Your task to perform on an android device: see creations saved in the google photos Image 0: 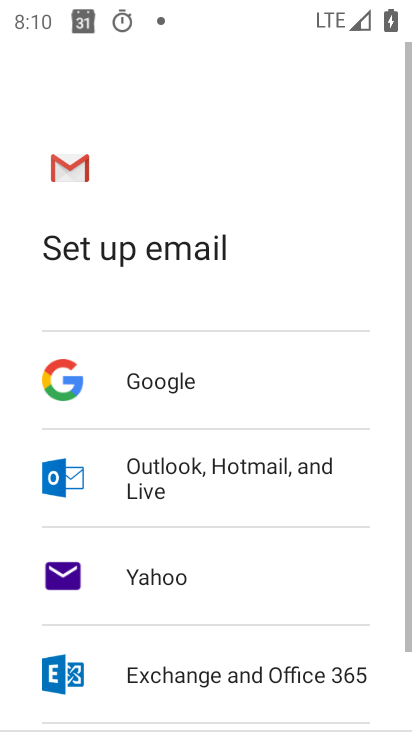
Step 0: press home button
Your task to perform on an android device: see creations saved in the google photos Image 1: 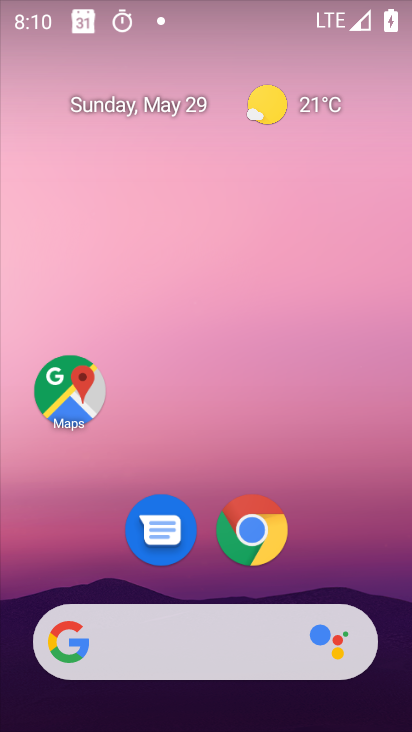
Step 1: drag from (294, 682) to (404, 47)
Your task to perform on an android device: see creations saved in the google photos Image 2: 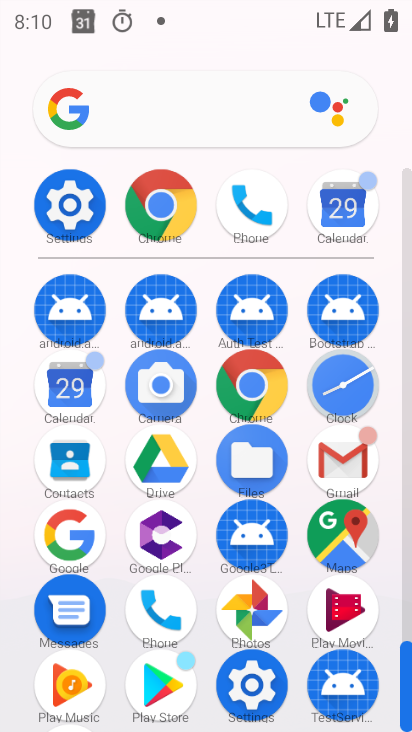
Step 2: click (247, 618)
Your task to perform on an android device: see creations saved in the google photos Image 3: 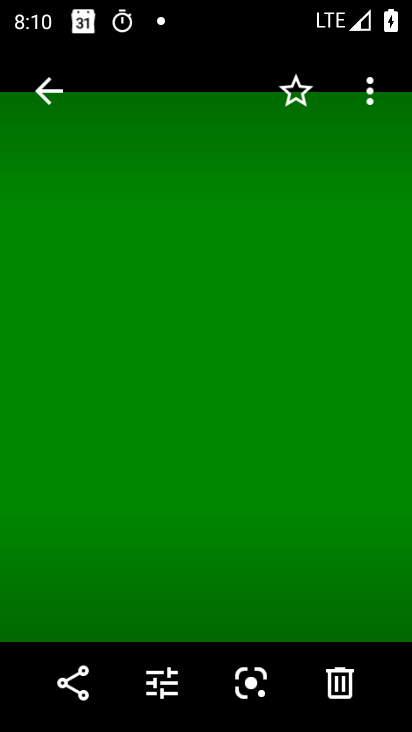
Step 3: click (363, 94)
Your task to perform on an android device: see creations saved in the google photos Image 4: 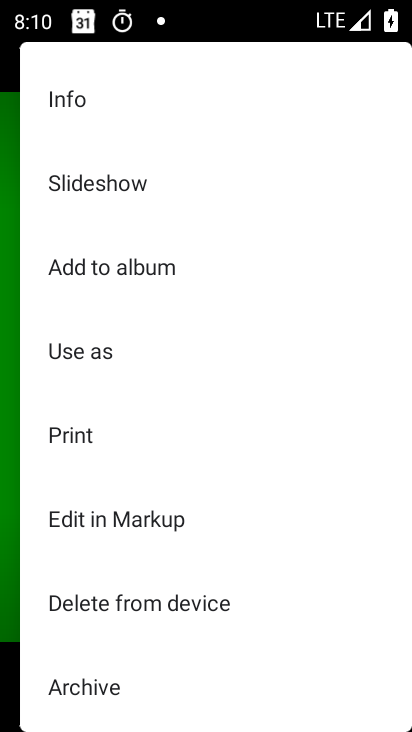
Step 4: click (9, 513)
Your task to perform on an android device: see creations saved in the google photos Image 5: 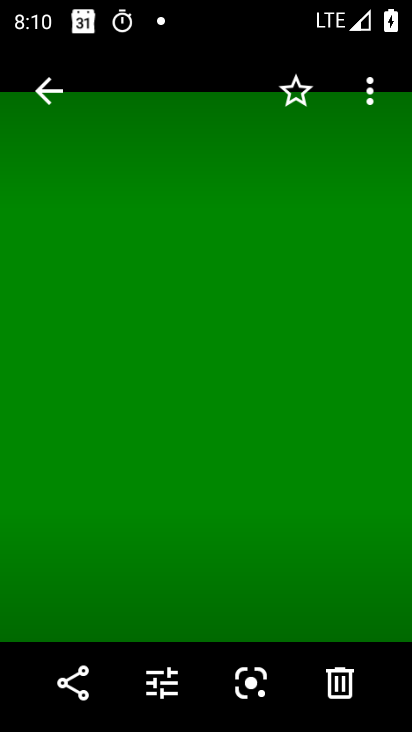
Step 5: click (33, 88)
Your task to perform on an android device: see creations saved in the google photos Image 6: 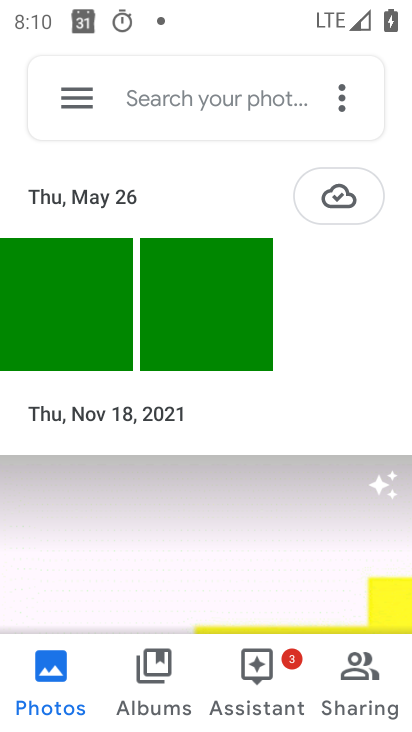
Step 6: drag from (261, 507) to (233, 164)
Your task to perform on an android device: see creations saved in the google photos Image 7: 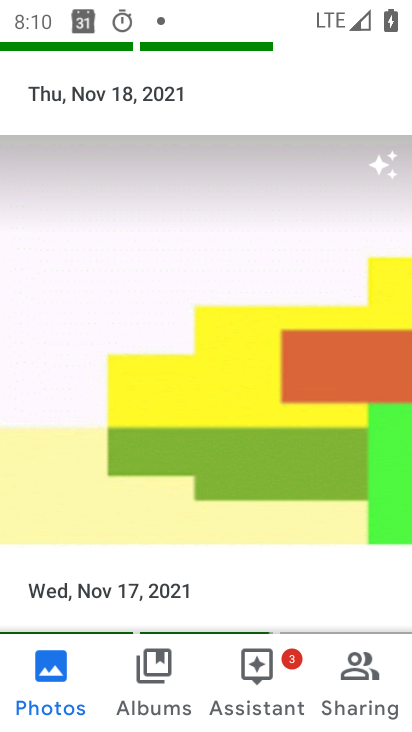
Step 7: drag from (254, 483) to (210, 241)
Your task to perform on an android device: see creations saved in the google photos Image 8: 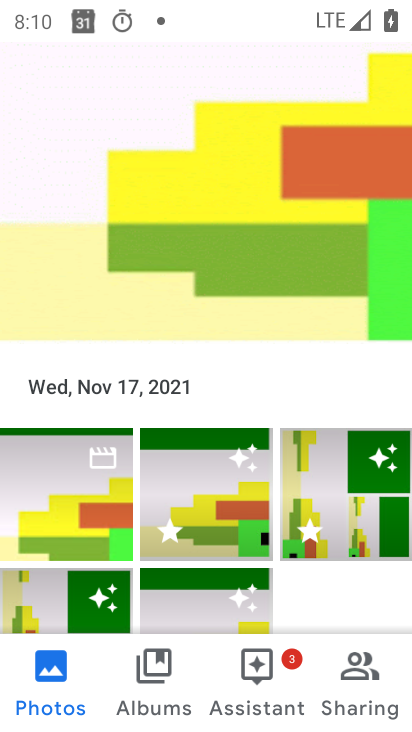
Step 8: click (242, 468)
Your task to perform on an android device: see creations saved in the google photos Image 9: 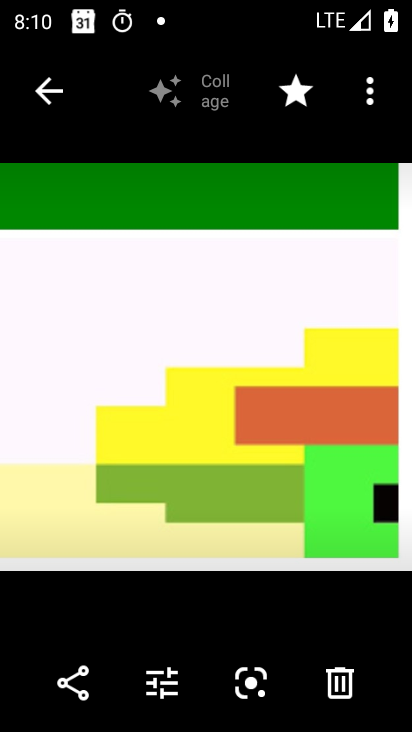
Step 9: click (385, 106)
Your task to perform on an android device: see creations saved in the google photos Image 10: 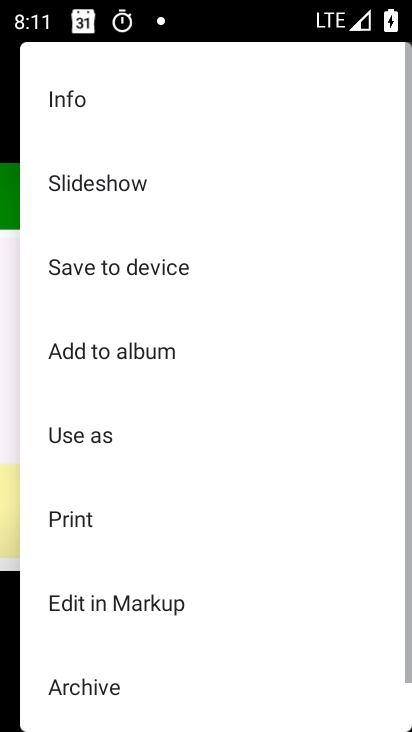
Step 10: click (134, 266)
Your task to perform on an android device: see creations saved in the google photos Image 11: 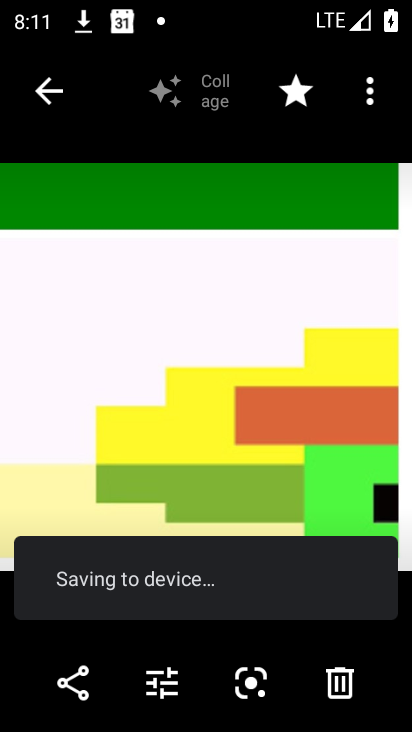
Step 11: task complete